Your task to perform on an android device: Turn on the flashlight Image 0: 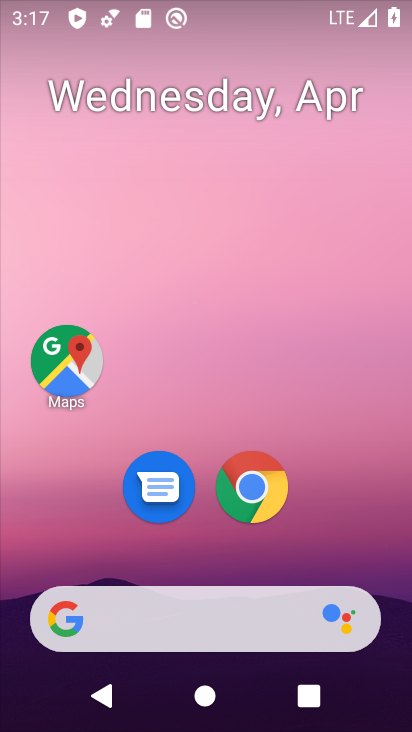
Step 0: click (304, 461)
Your task to perform on an android device: Turn on the flashlight Image 1: 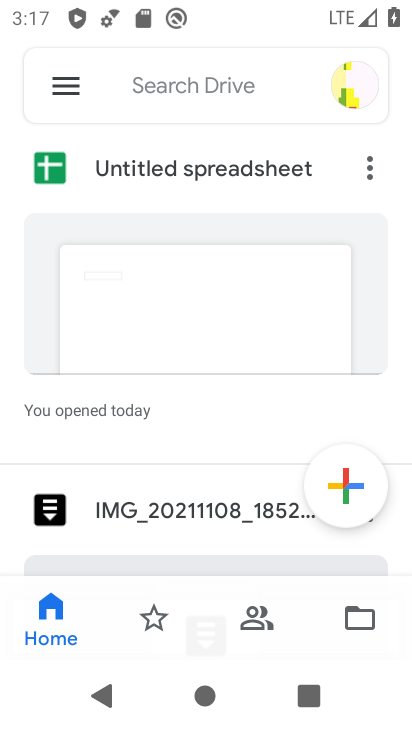
Step 1: task complete